Your task to perform on an android device: toggle javascript in the chrome app Image 0: 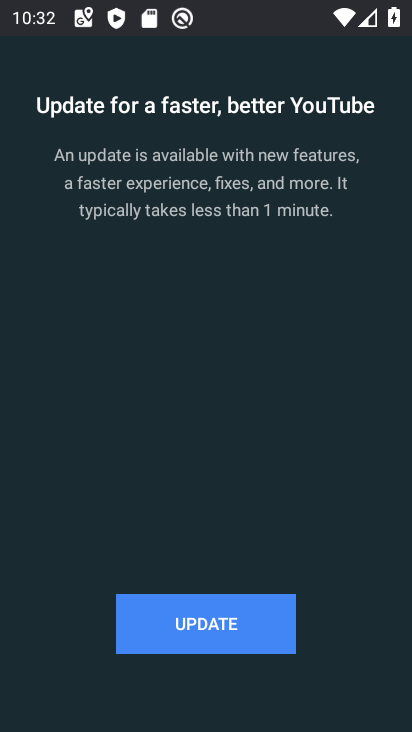
Step 0: press home button
Your task to perform on an android device: toggle javascript in the chrome app Image 1: 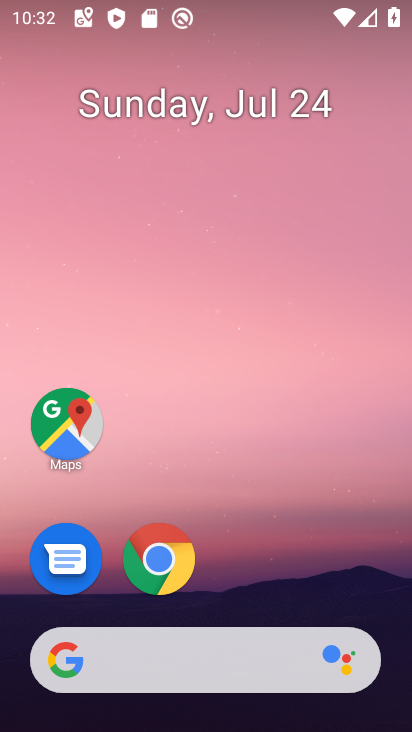
Step 1: click (164, 565)
Your task to perform on an android device: toggle javascript in the chrome app Image 2: 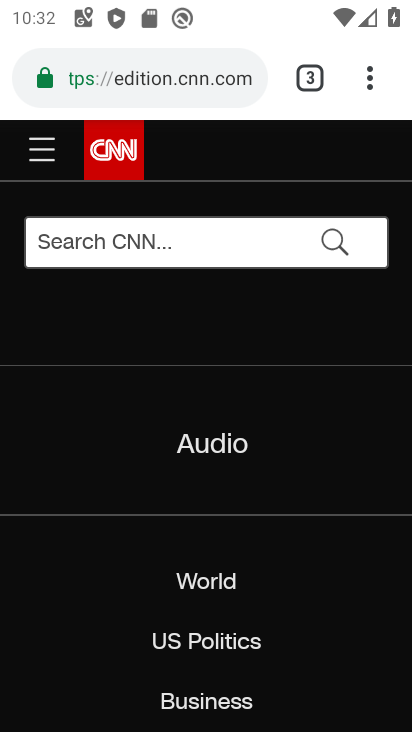
Step 2: drag from (375, 75) to (93, 615)
Your task to perform on an android device: toggle javascript in the chrome app Image 3: 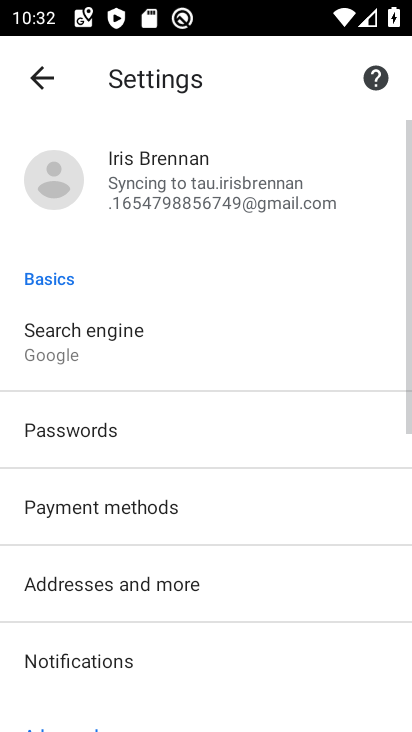
Step 3: drag from (125, 695) to (261, 89)
Your task to perform on an android device: toggle javascript in the chrome app Image 4: 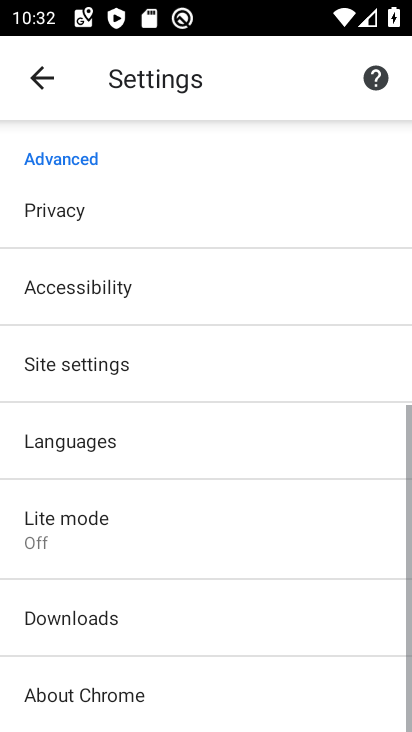
Step 4: click (140, 368)
Your task to perform on an android device: toggle javascript in the chrome app Image 5: 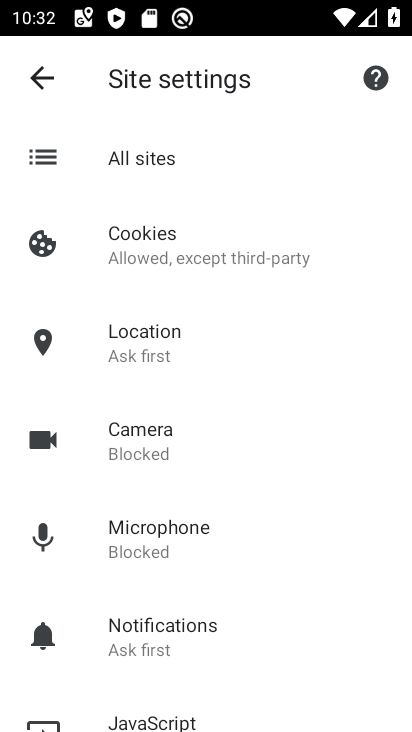
Step 5: click (146, 717)
Your task to perform on an android device: toggle javascript in the chrome app Image 6: 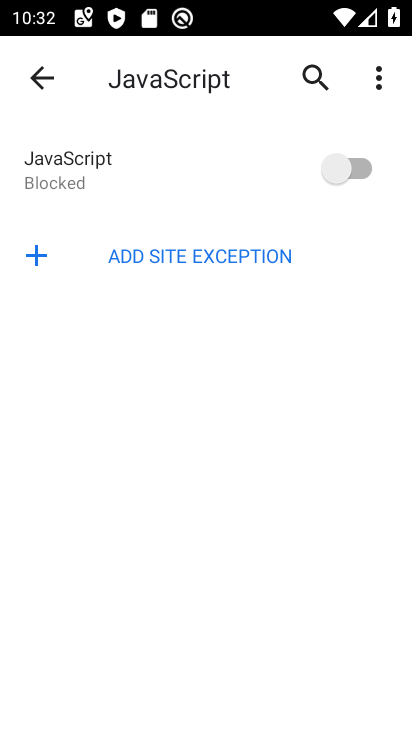
Step 6: click (341, 172)
Your task to perform on an android device: toggle javascript in the chrome app Image 7: 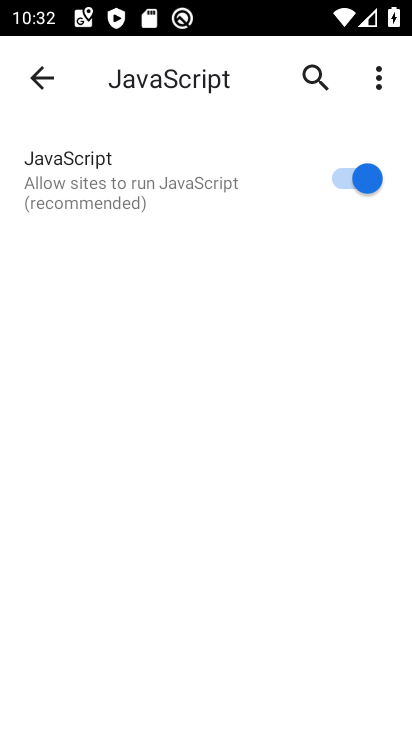
Step 7: task complete